Your task to perform on an android device: delete the emails in spam in the gmail app Image 0: 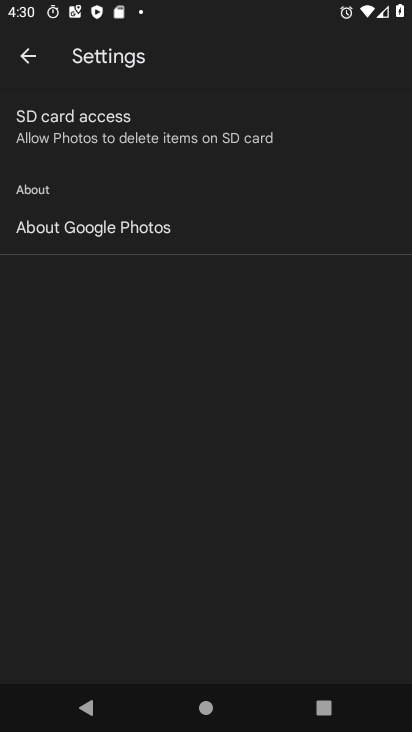
Step 0: press home button
Your task to perform on an android device: delete the emails in spam in the gmail app Image 1: 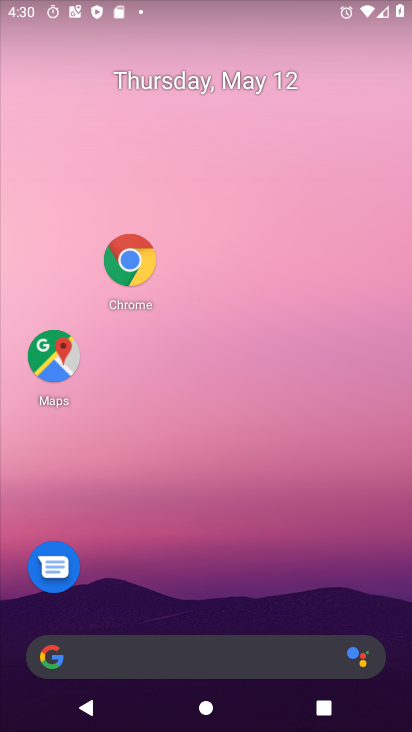
Step 1: drag from (197, 634) to (149, 188)
Your task to perform on an android device: delete the emails in spam in the gmail app Image 2: 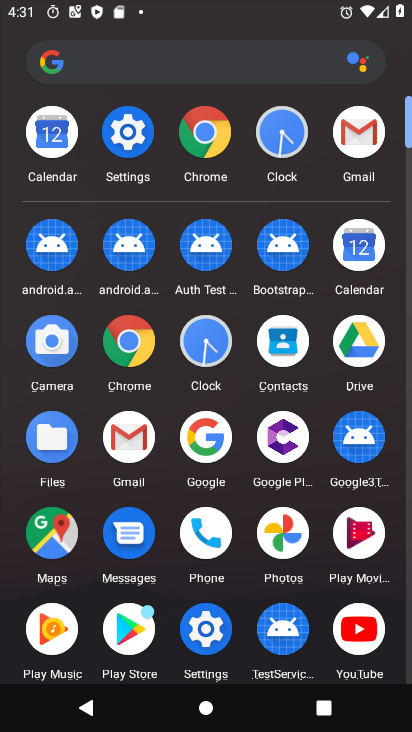
Step 2: click (138, 439)
Your task to perform on an android device: delete the emails in spam in the gmail app Image 3: 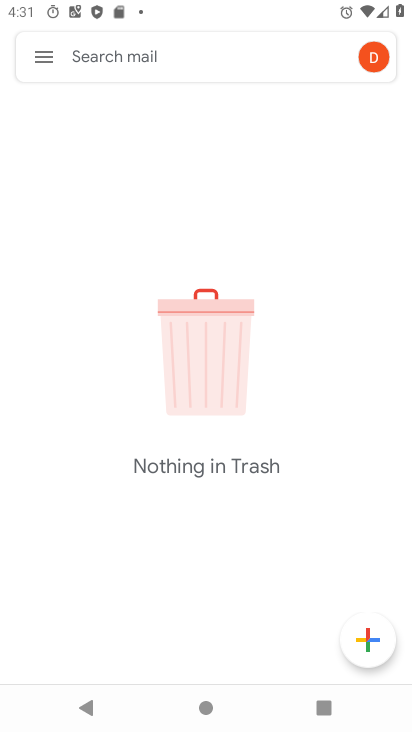
Step 3: click (49, 58)
Your task to perform on an android device: delete the emails in spam in the gmail app Image 4: 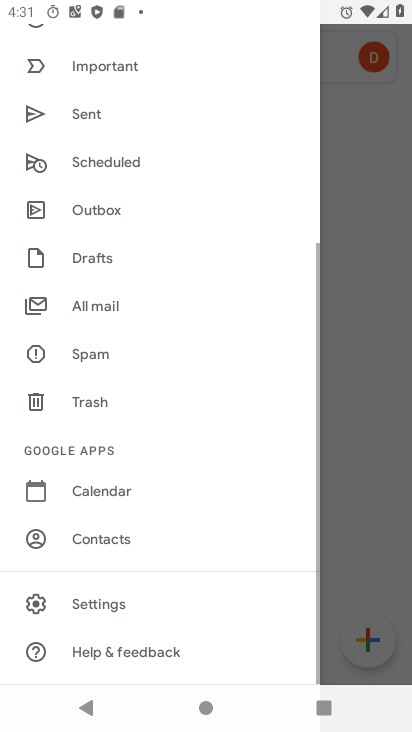
Step 4: click (90, 354)
Your task to perform on an android device: delete the emails in spam in the gmail app Image 5: 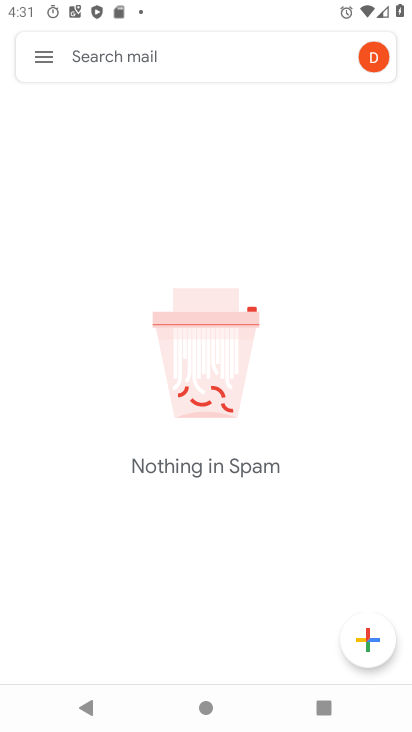
Step 5: task complete